Your task to perform on an android device: Open Youtube and go to "Your channel" Image 0: 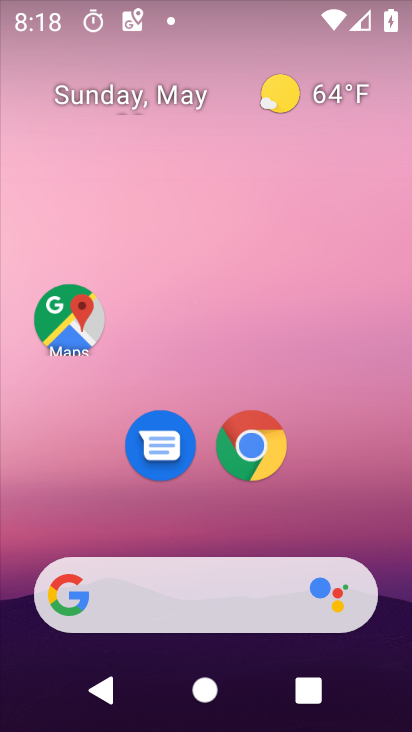
Step 0: drag from (189, 538) to (3, 171)
Your task to perform on an android device: Open Youtube and go to "Your channel" Image 1: 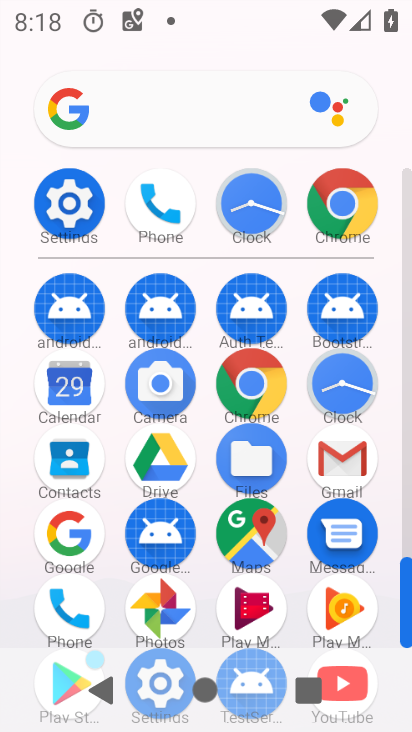
Step 1: drag from (297, 637) to (261, 265)
Your task to perform on an android device: Open Youtube and go to "Your channel" Image 2: 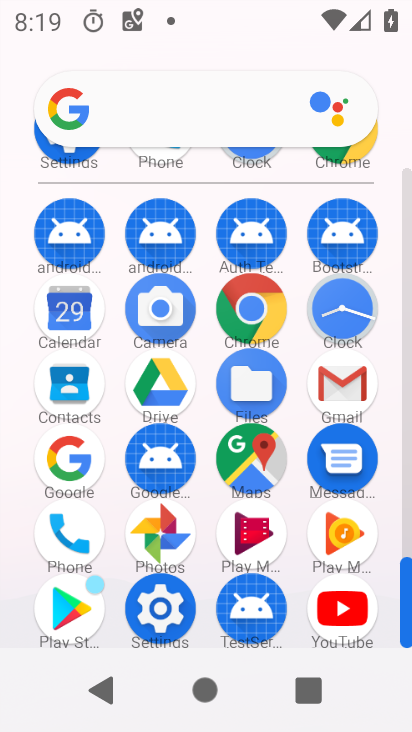
Step 2: click (336, 610)
Your task to perform on an android device: Open Youtube and go to "Your channel" Image 3: 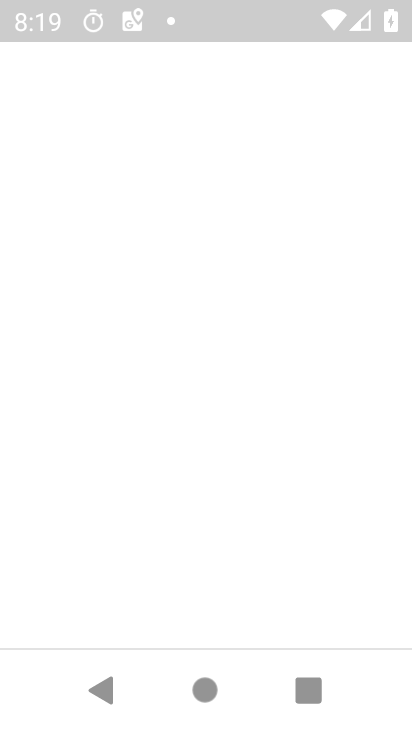
Step 3: drag from (210, 548) to (225, 199)
Your task to perform on an android device: Open Youtube and go to "Your channel" Image 4: 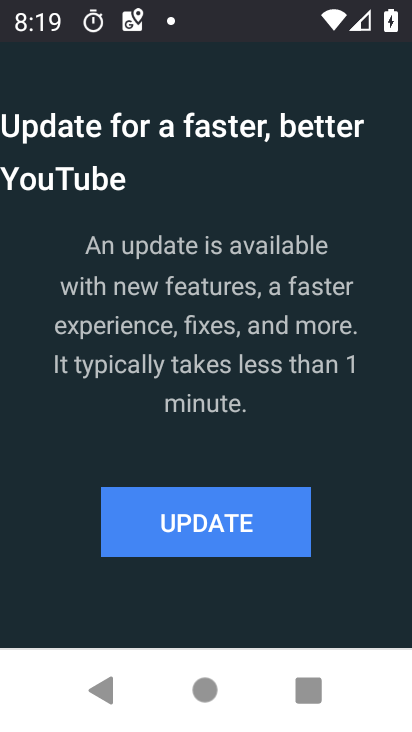
Step 4: click (216, 514)
Your task to perform on an android device: Open Youtube and go to "Your channel" Image 5: 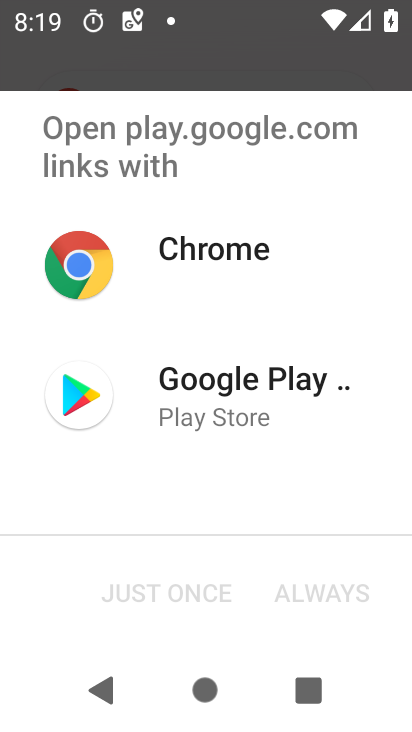
Step 5: click (163, 375)
Your task to perform on an android device: Open Youtube and go to "Your channel" Image 6: 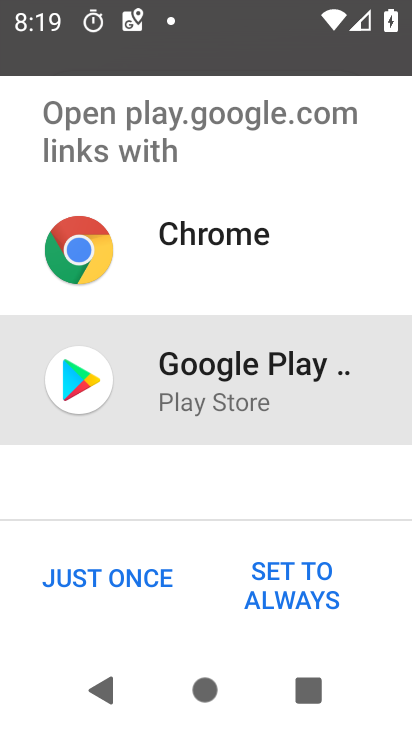
Step 6: click (116, 584)
Your task to perform on an android device: Open Youtube and go to "Your channel" Image 7: 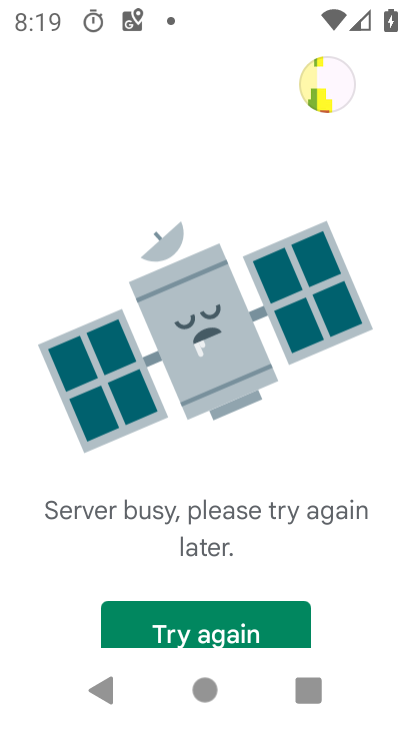
Step 7: click (168, 619)
Your task to perform on an android device: Open Youtube and go to "Your channel" Image 8: 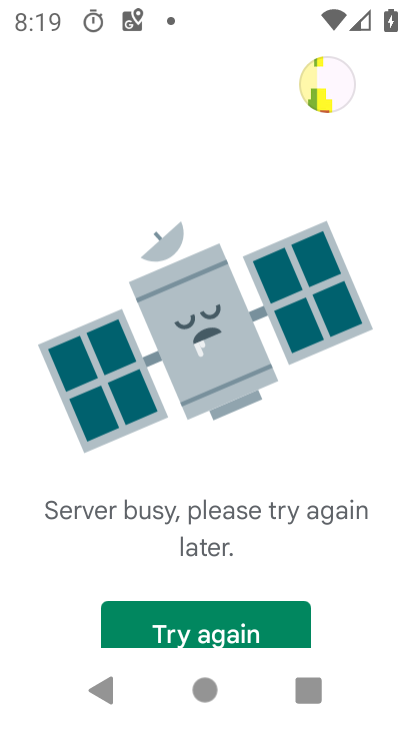
Step 8: task complete